Your task to perform on an android device: Go to calendar. Show me events next week Image 0: 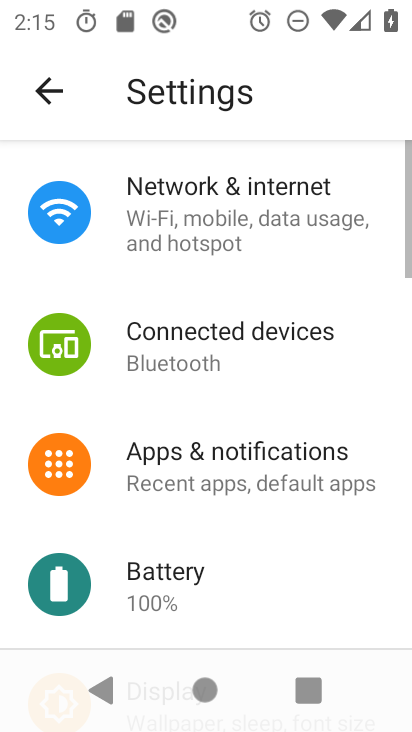
Step 0: press home button
Your task to perform on an android device: Go to calendar. Show me events next week Image 1: 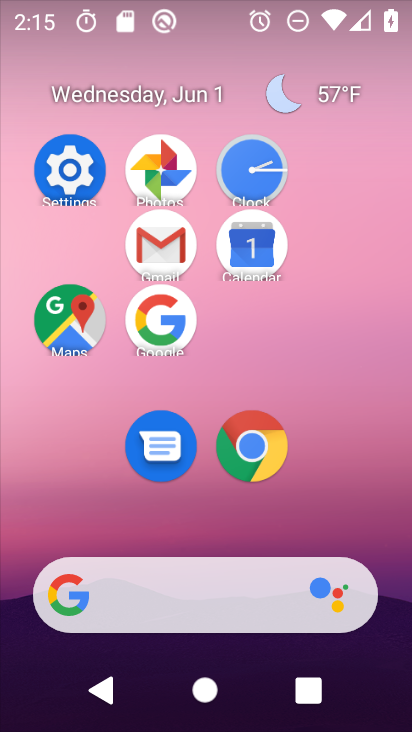
Step 1: click (252, 250)
Your task to perform on an android device: Go to calendar. Show me events next week Image 2: 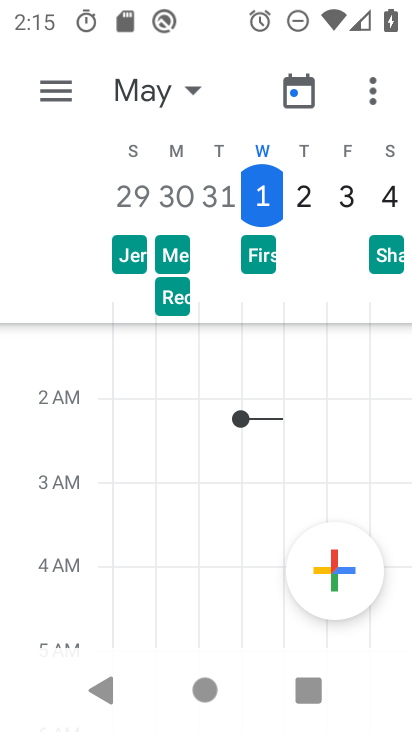
Step 2: click (53, 82)
Your task to perform on an android device: Go to calendar. Show me events next week Image 3: 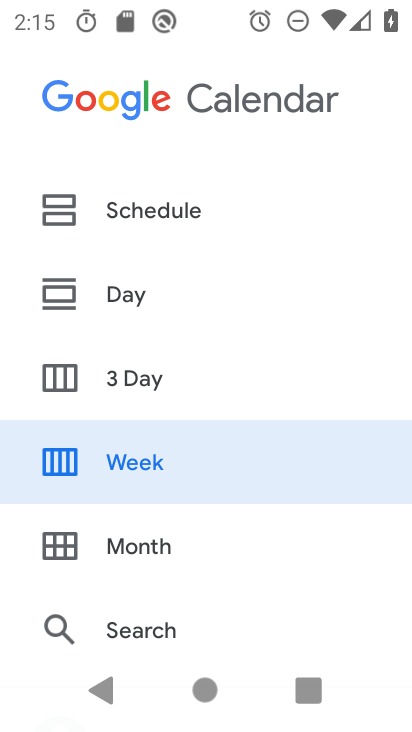
Step 3: click (181, 461)
Your task to perform on an android device: Go to calendar. Show me events next week Image 4: 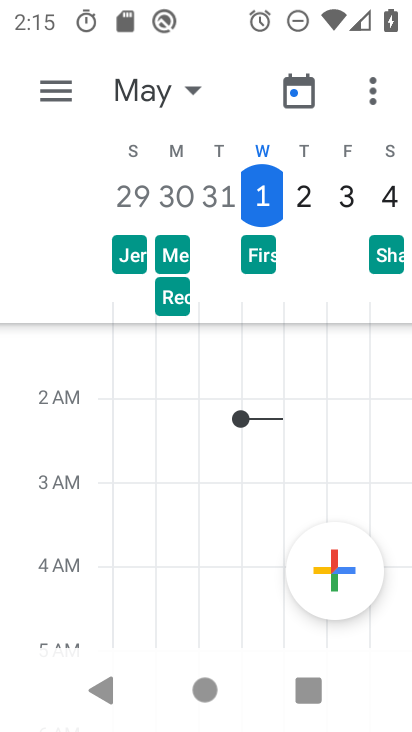
Step 4: task complete